Your task to perform on an android device: turn off location Image 0: 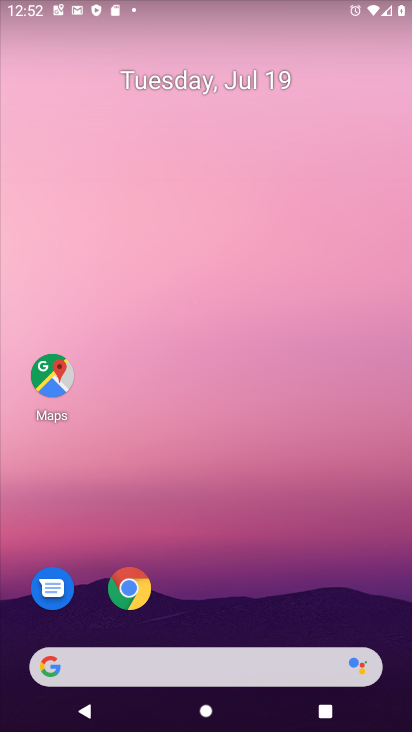
Step 0: drag from (402, 623) to (257, 59)
Your task to perform on an android device: turn off location Image 1: 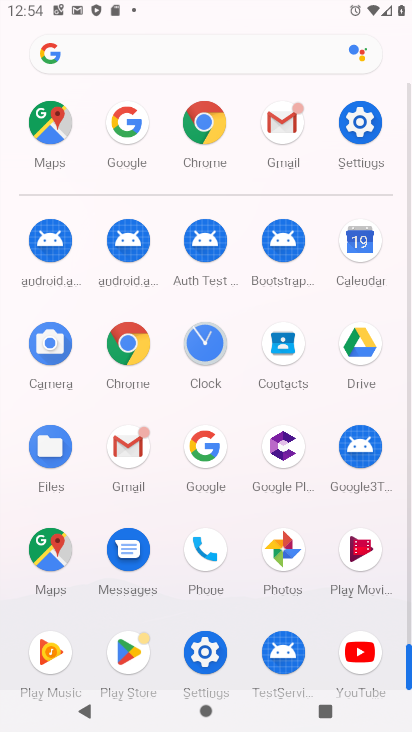
Step 1: click (358, 129)
Your task to perform on an android device: turn off location Image 2: 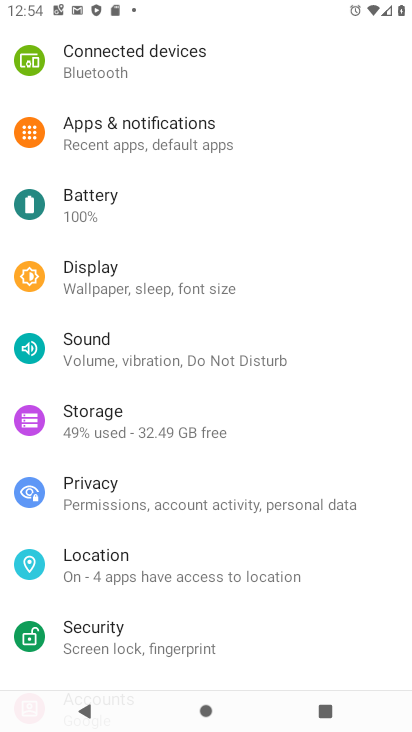
Step 2: click (111, 556)
Your task to perform on an android device: turn off location Image 3: 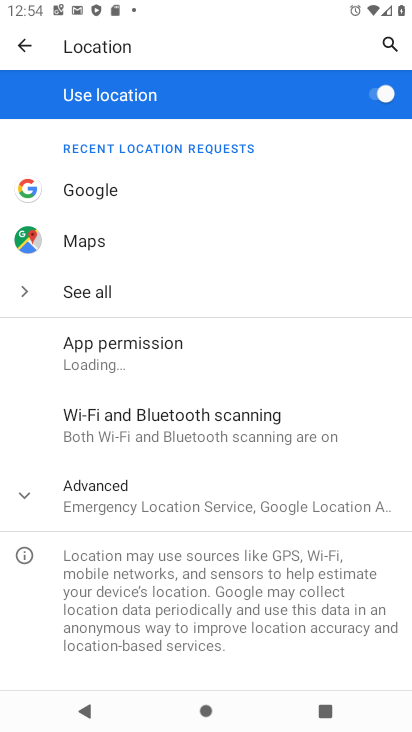
Step 3: click (381, 90)
Your task to perform on an android device: turn off location Image 4: 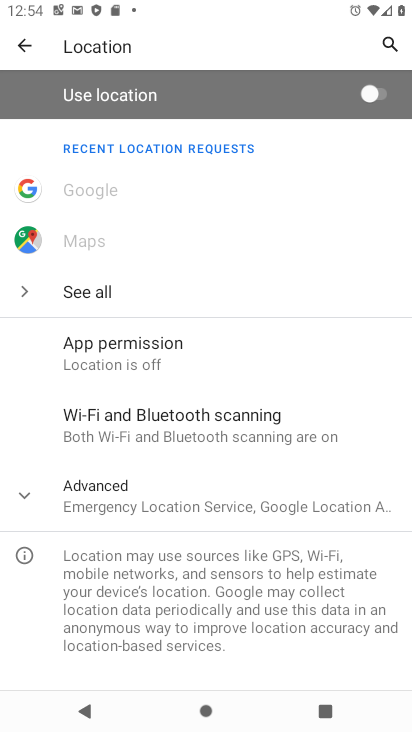
Step 4: task complete